Your task to perform on an android device: See recent photos Image 0: 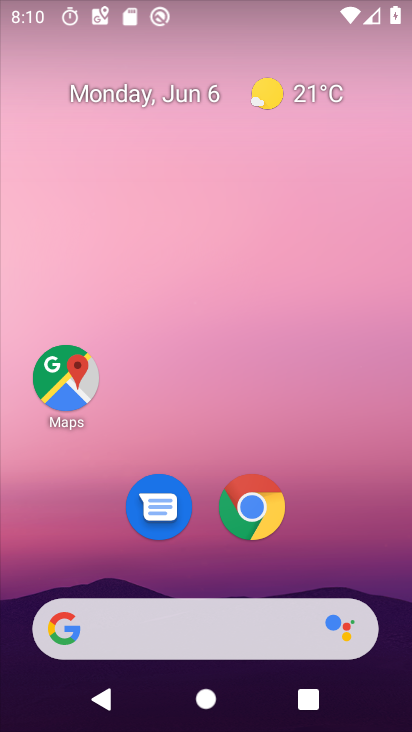
Step 0: press home button
Your task to perform on an android device: See recent photos Image 1: 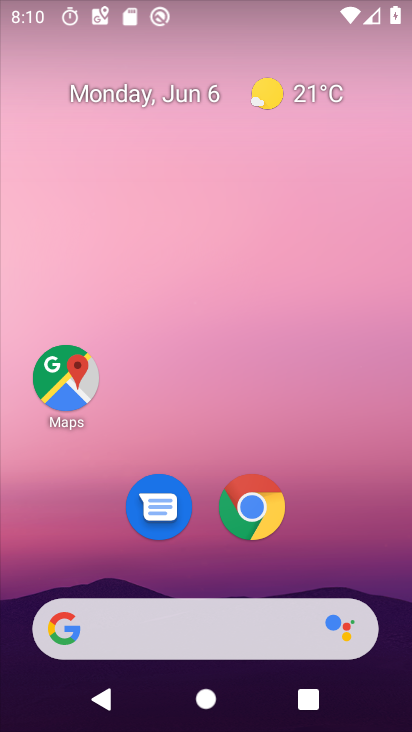
Step 1: drag from (0, 0) to (327, 28)
Your task to perform on an android device: See recent photos Image 2: 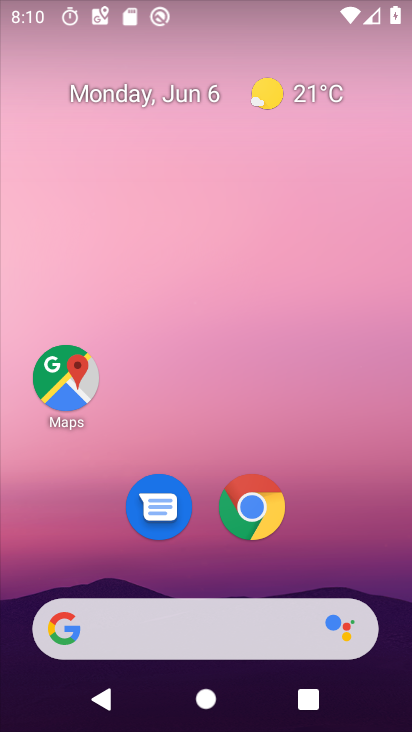
Step 2: drag from (374, 635) to (323, 190)
Your task to perform on an android device: See recent photos Image 3: 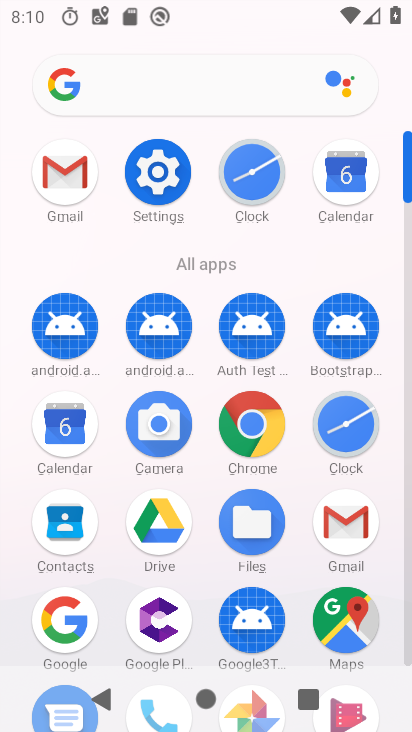
Step 3: drag from (253, 531) to (243, 203)
Your task to perform on an android device: See recent photos Image 4: 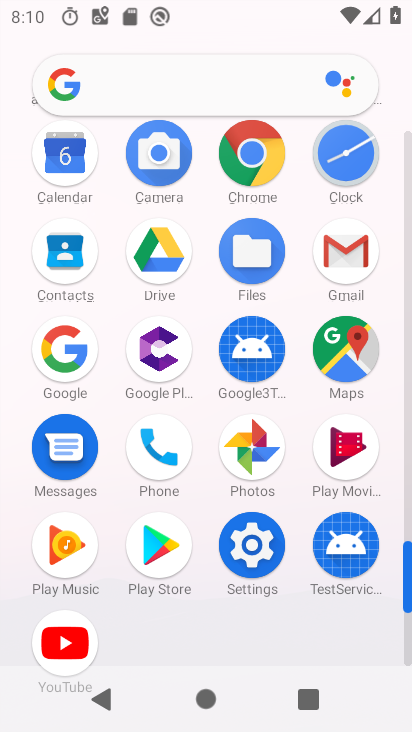
Step 4: click (273, 442)
Your task to perform on an android device: See recent photos Image 5: 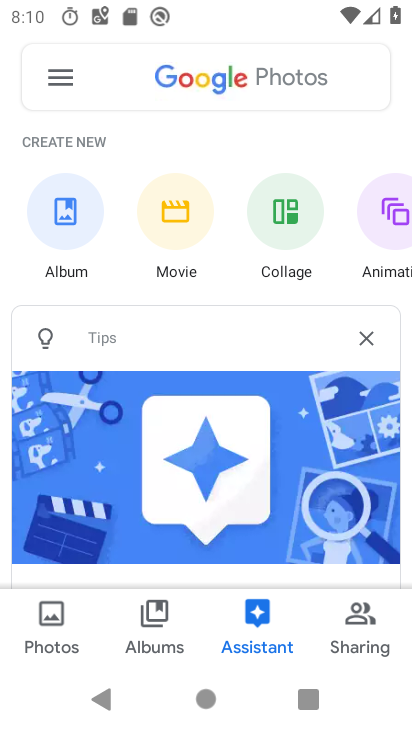
Step 5: click (59, 617)
Your task to perform on an android device: See recent photos Image 6: 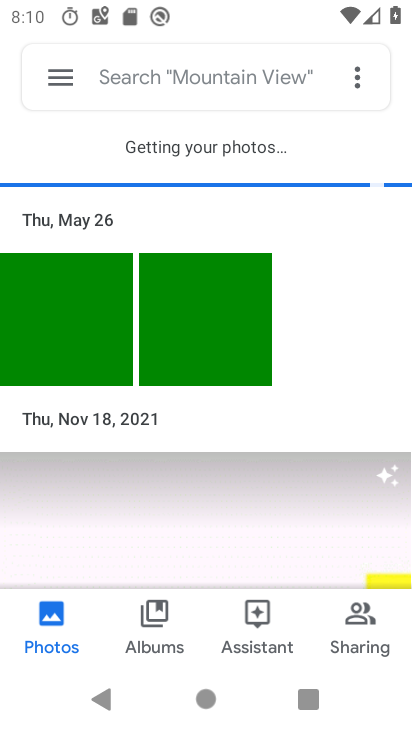
Step 6: task complete